Your task to perform on an android device: Go to sound settings Image 0: 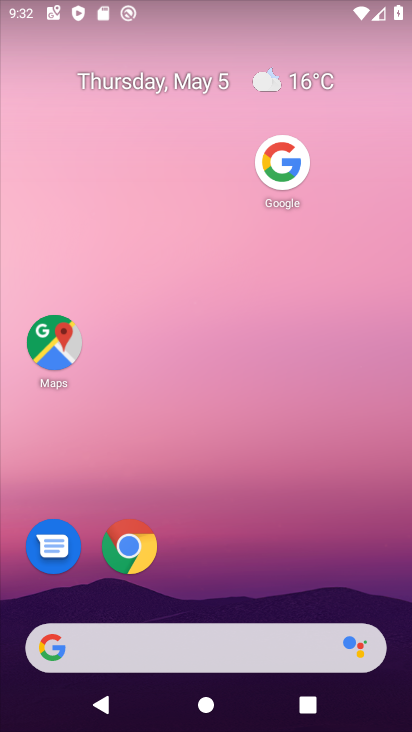
Step 0: drag from (157, 644) to (338, 66)
Your task to perform on an android device: Go to sound settings Image 1: 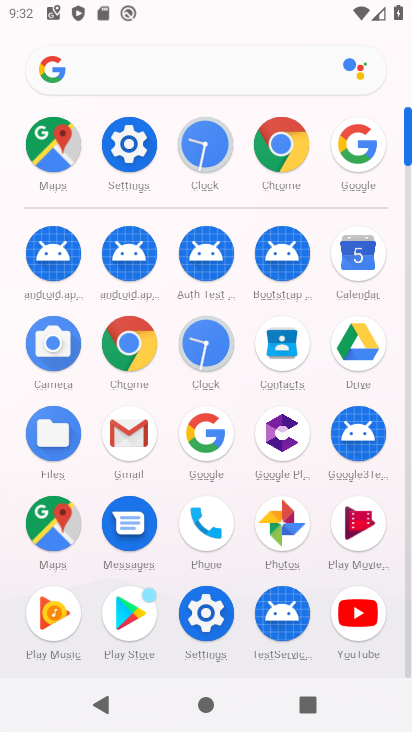
Step 1: click (134, 139)
Your task to perform on an android device: Go to sound settings Image 2: 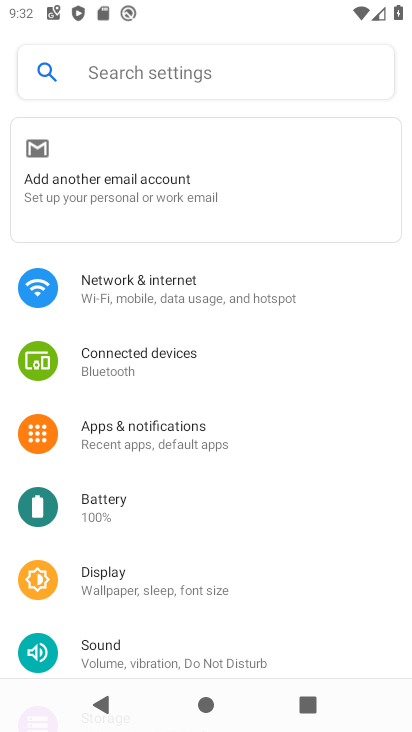
Step 2: drag from (245, 591) to (306, 431)
Your task to perform on an android device: Go to sound settings Image 3: 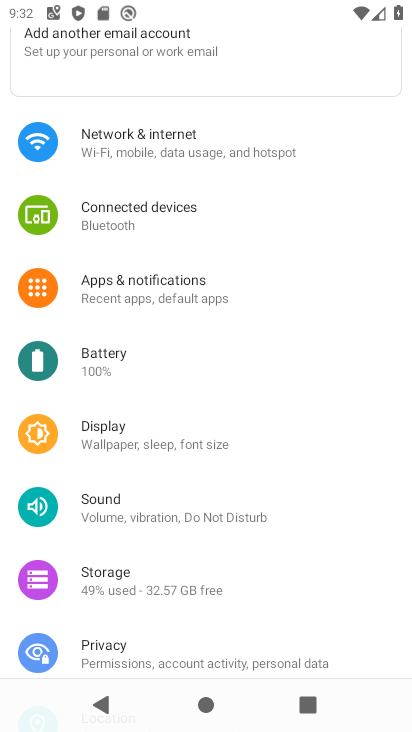
Step 3: click (182, 511)
Your task to perform on an android device: Go to sound settings Image 4: 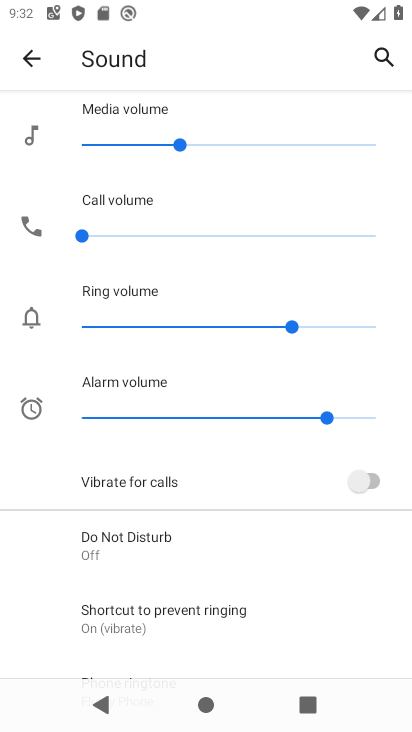
Step 4: task complete